Your task to perform on an android device: delete a single message in the gmail app Image 0: 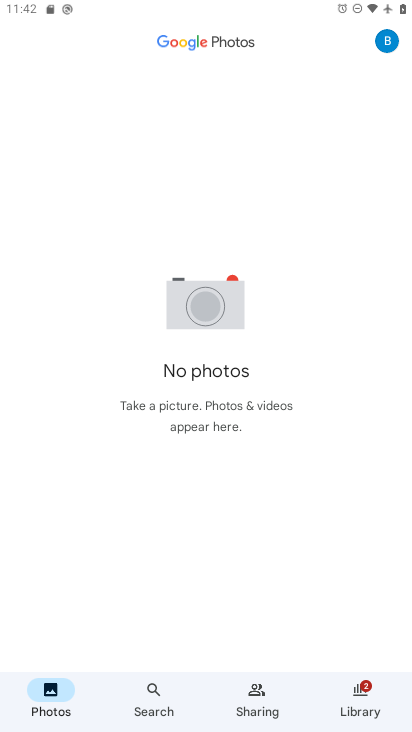
Step 0: press home button
Your task to perform on an android device: delete a single message in the gmail app Image 1: 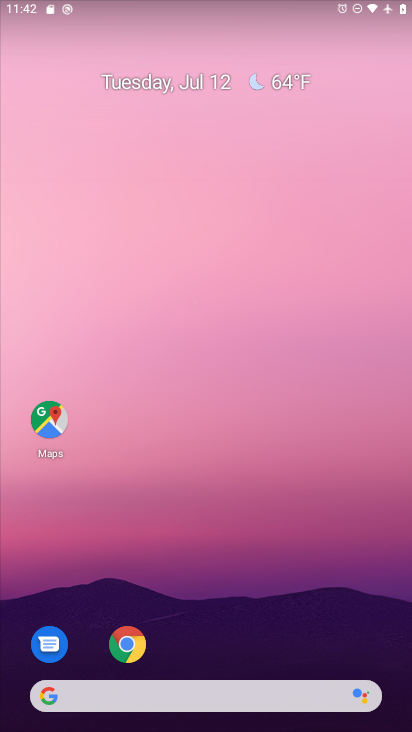
Step 1: drag from (289, 640) to (298, 11)
Your task to perform on an android device: delete a single message in the gmail app Image 2: 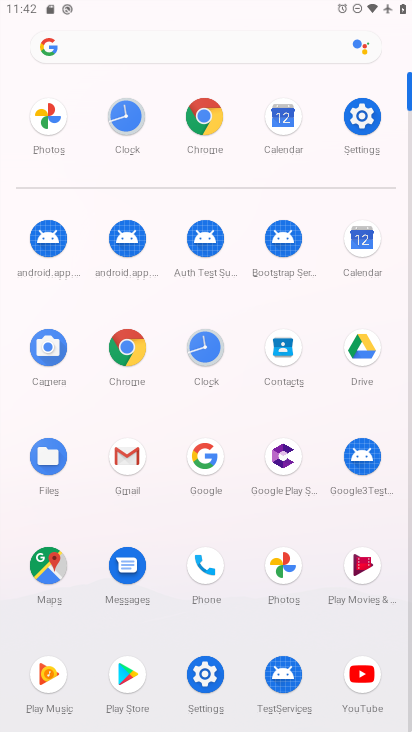
Step 2: click (133, 468)
Your task to perform on an android device: delete a single message in the gmail app Image 3: 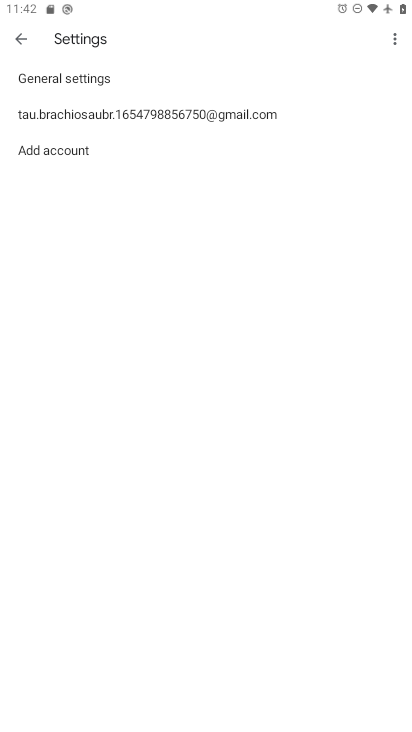
Step 3: click (12, 46)
Your task to perform on an android device: delete a single message in the gmail app Image 4: 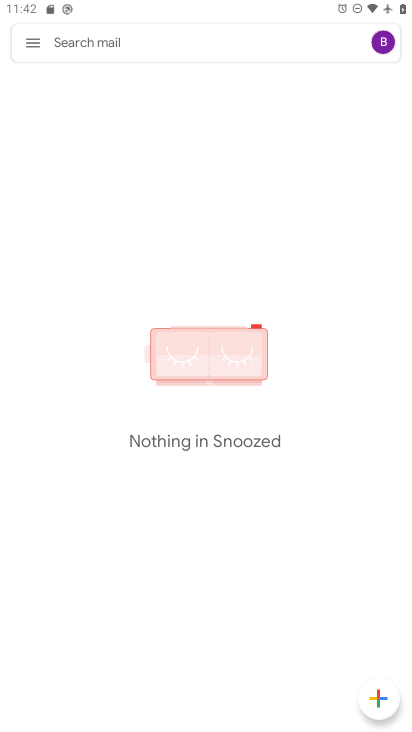
Step 4: click (41, 39)
Your task to perform on an android device: delete a single message in the gmail app Image 5: 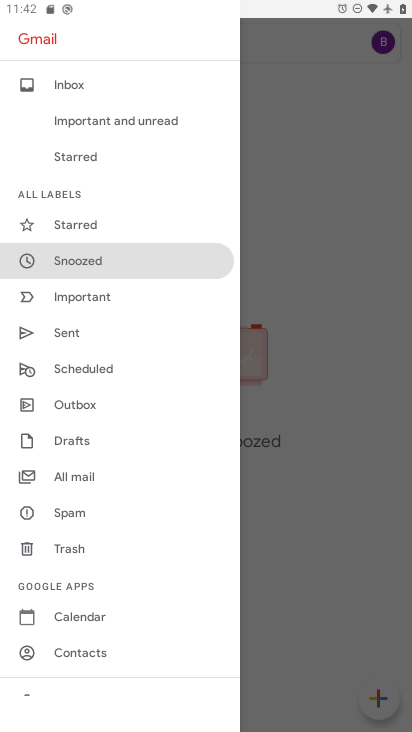
Step 5: click (112, 473)
Your task to perform on an android device: delete a single message in the gmail app Image 6: 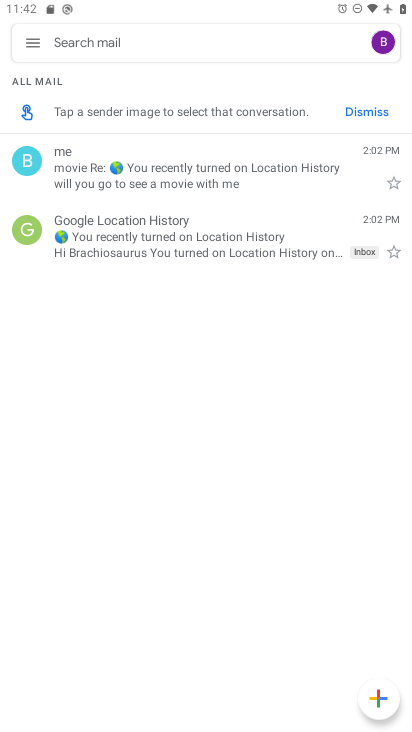
Step 6: click (32, 161)
Your task to perform on an android device: delete a single message in the gmail app Image 7: 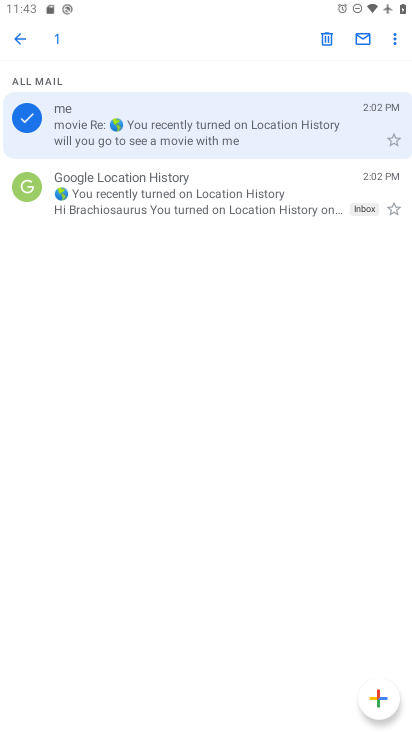
Step 7: click (326, 41)
Your task to perform on an android device: delete a single message in the gmail app Image 8: 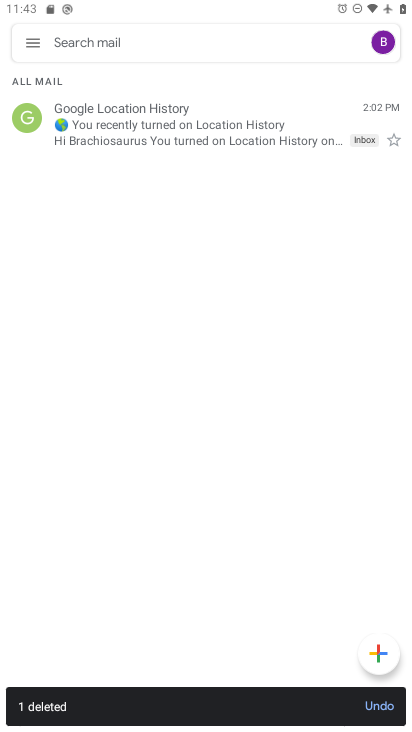
Step 8: task complete